Your task to perform on an android device: Turn off the flashlight Image 0: 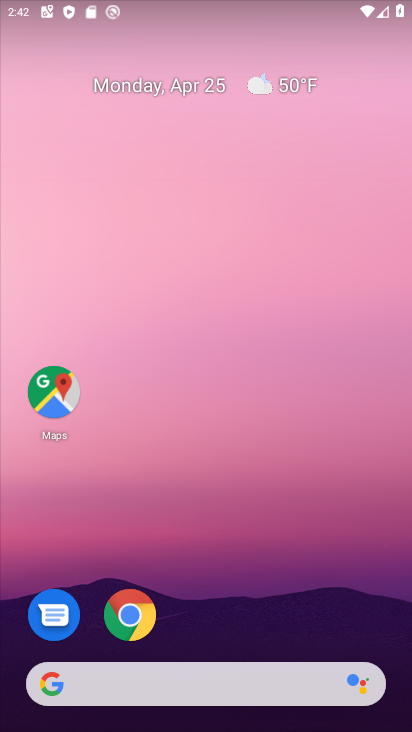
Step 0: drag from (226, 713) to (221, 145)
Your task to perform on an android device: Turn off the flashlight Image 1: 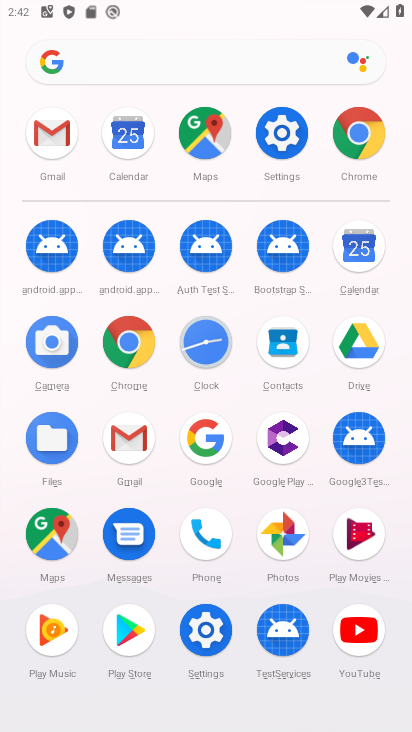
Step 1: click (280, 142)
Your task to perform on an android device: Turn off the flashlight Image 2: 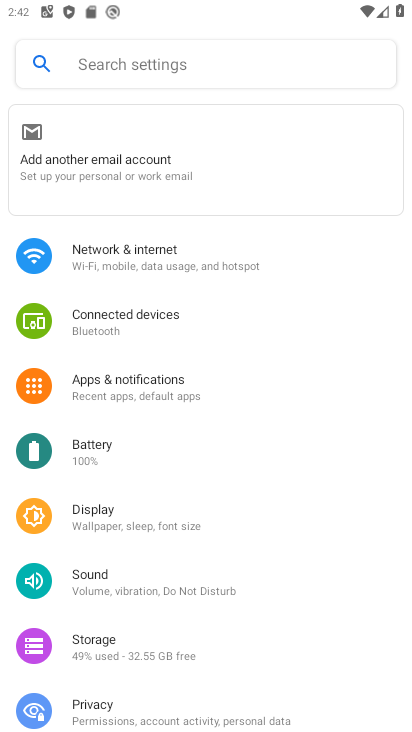
Step 2: task complete